Your task to perform on an android device: Find coffee shops on Maps Image 0: 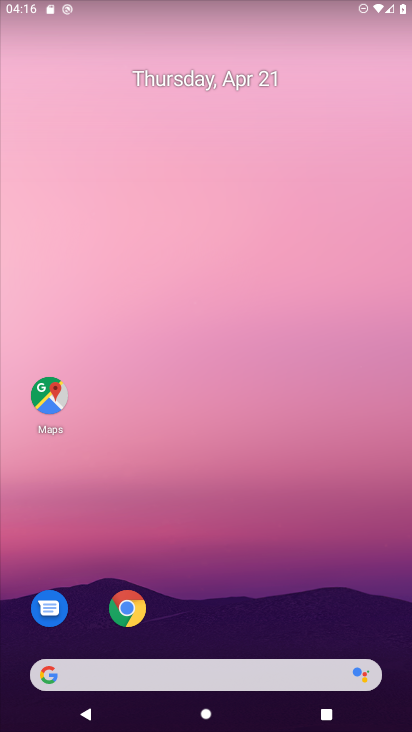
Step 0: drag from (237, 646) to (170, 242)
Your task to perform on an android device: Find coffee shops on Maps Image 1: 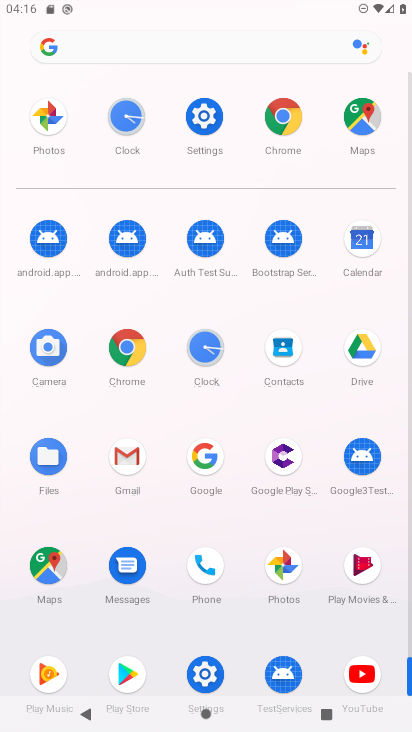
Step 1: click (49, 558)
Your task to perform on an android device: Find coffee shops on Maps Image 2: 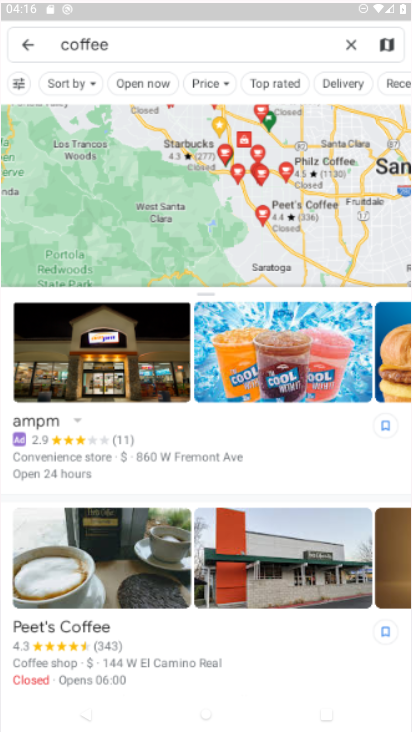
Step 2: click (49, 558)
Your task to perform on an android device: Find coffee shops on Maps Image 3: 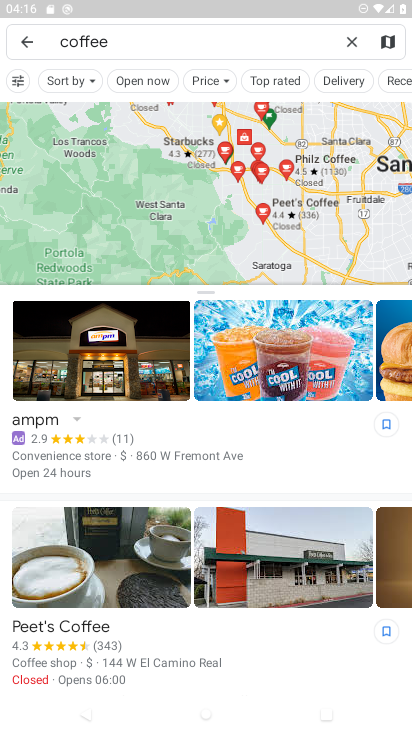
Step 3: click (267, 39)
Your task to perform on an android device: Find coffee shops on Maps Image 4: 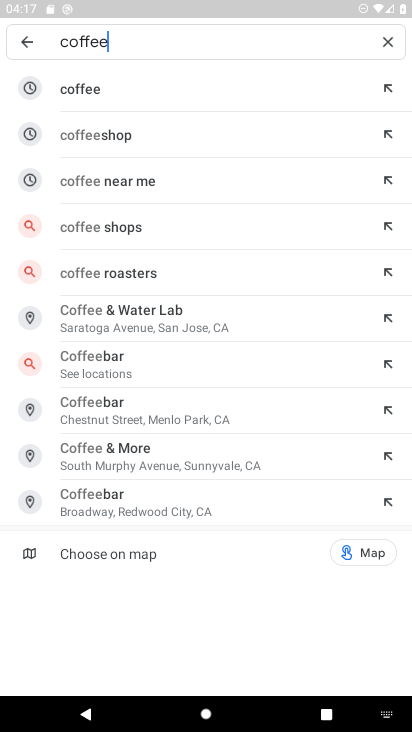
Step 4: type "coffee shops "
Your task to perform on an android device: Find coffee shops on Maps Image 5: 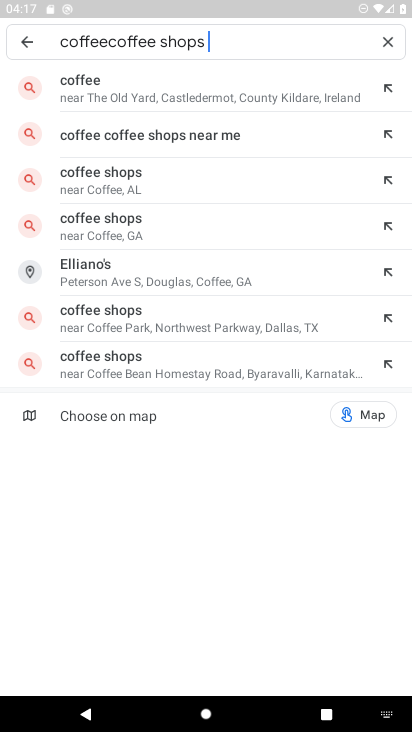
Step 5: click (199, 88)
Your task to perform on an android device: Find coffee shops on Maps Image 6: 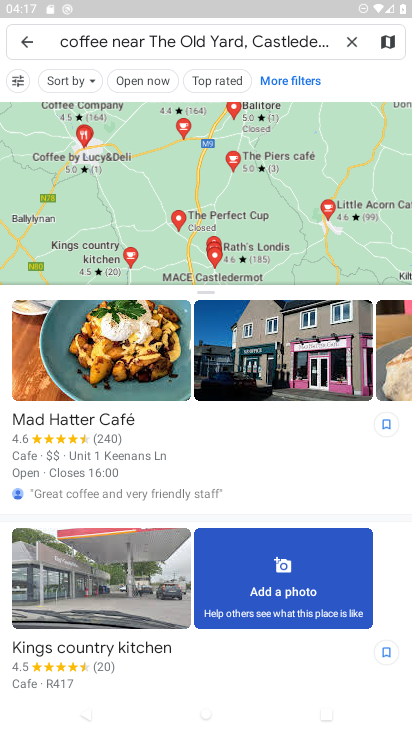
Step 6: click (351, 39)
Your task to perform on an android device: Find coffee shops on Maps Image 7: 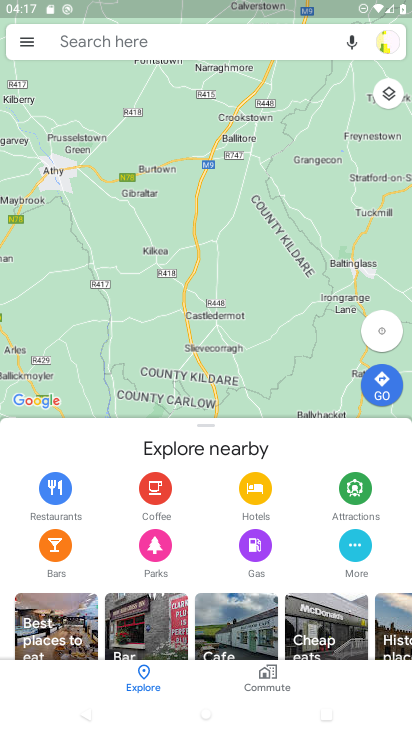
Step 7: click (266, 31)
Your task to perform on an android device: Find coffee shops on Maps Image 8: 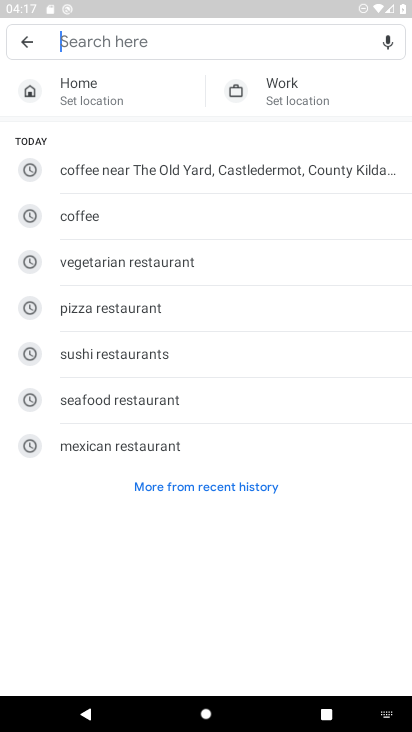
Step 8: type "coffee shops "
Your task to perform on an android device: Find coffee shops on Maps Image 9: 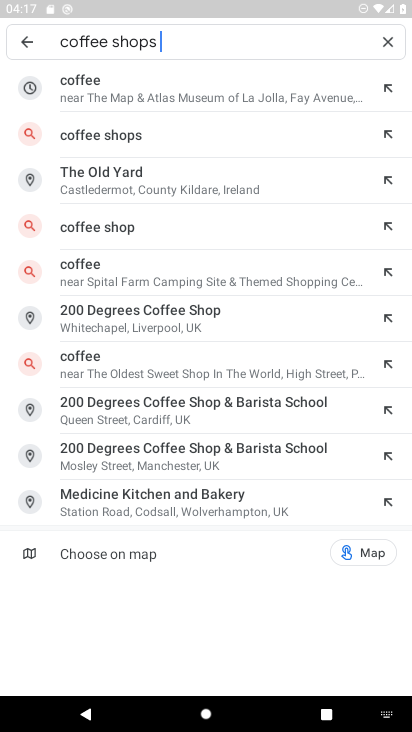
Step 9: click (136, 136)
Your task to perform on an android device: Find coffee shops on Maps Image 10: 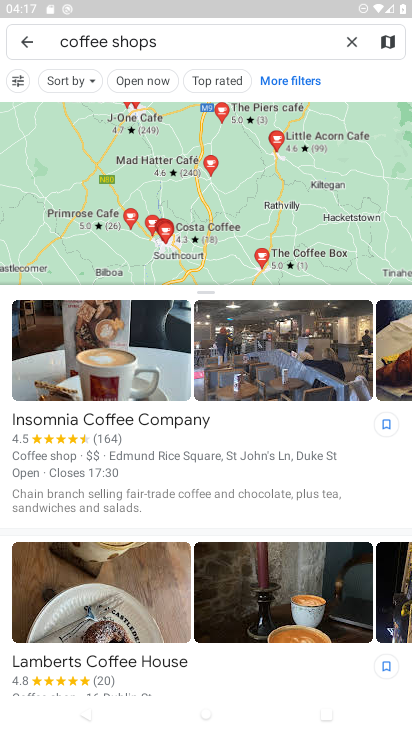
Step 10: task complete